Your task to perform on an android device: delete location history Image 0: 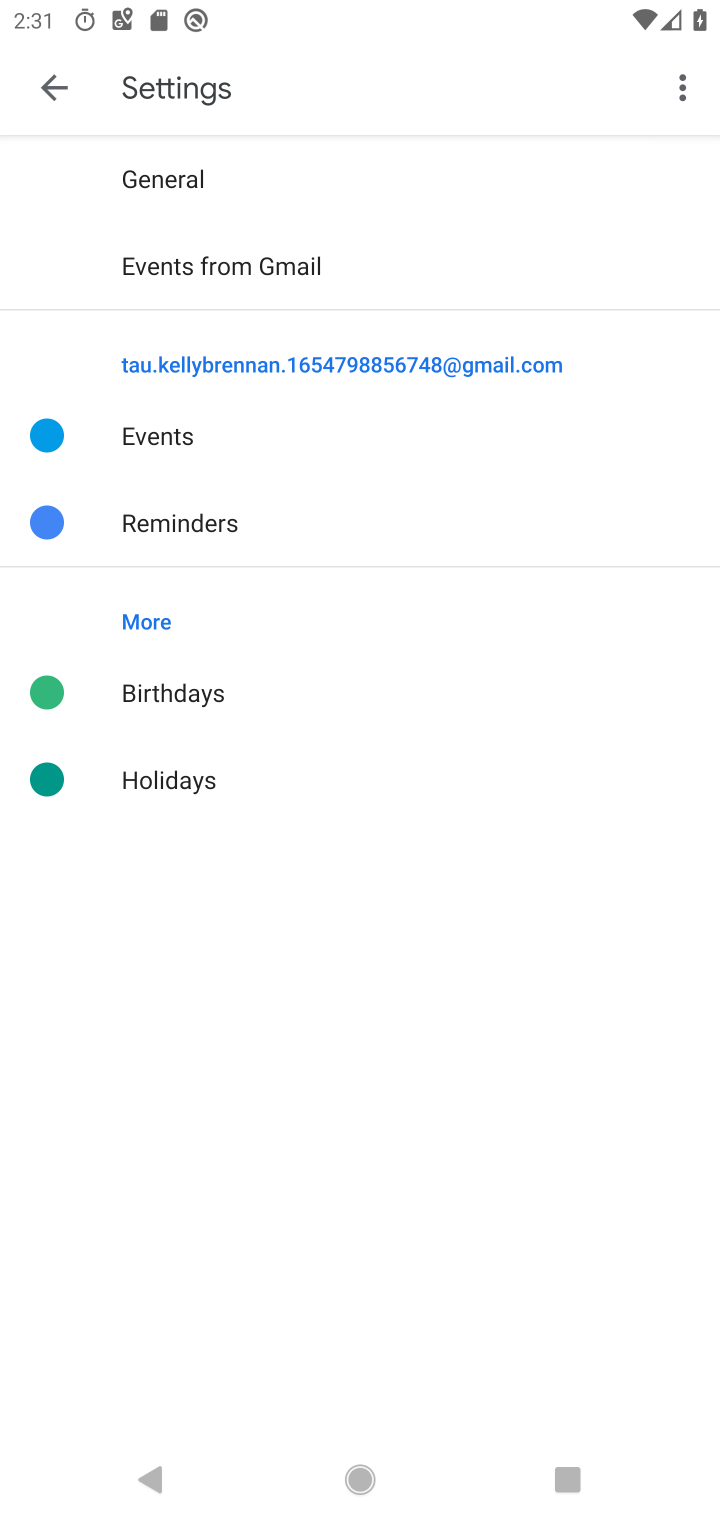
Step 0: press home button
Your task to perform on an android device: delete location history Image 1: 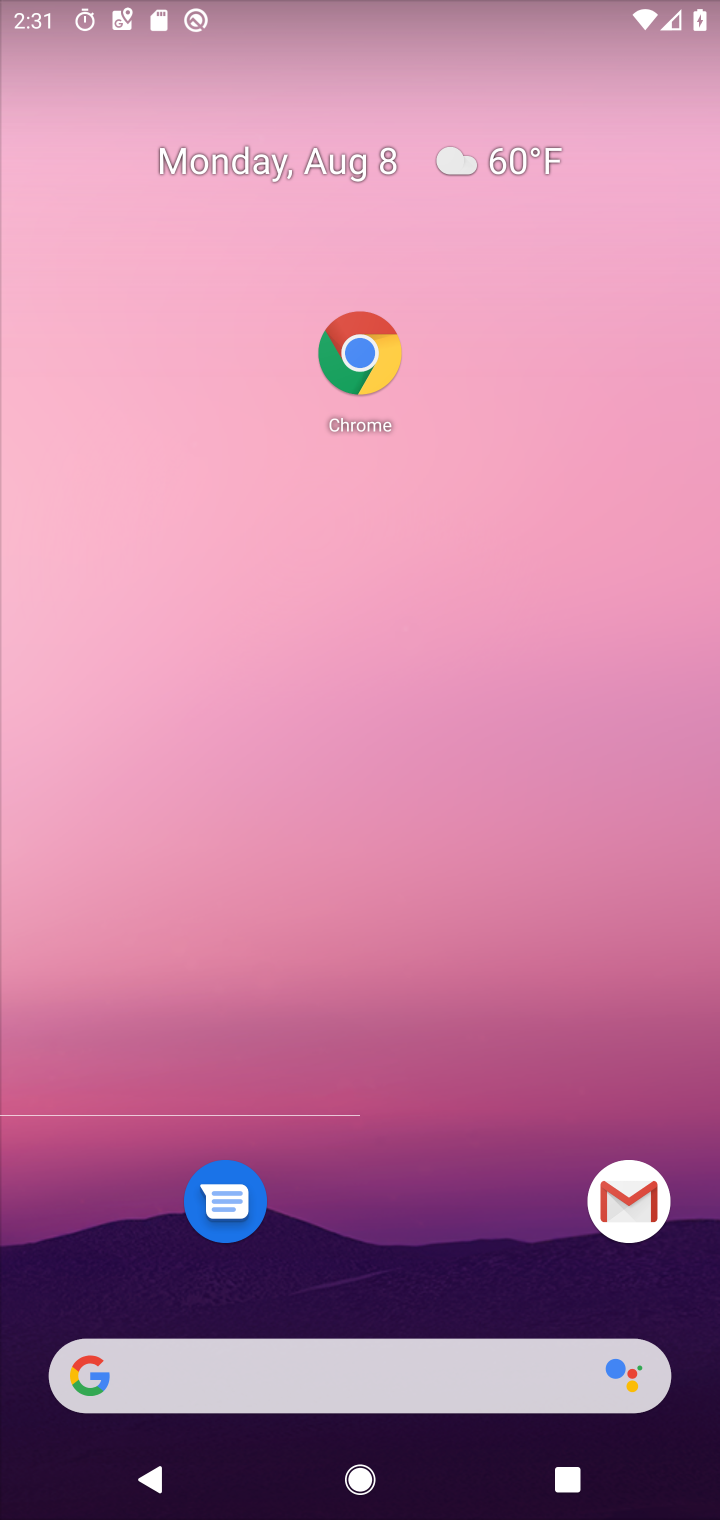
Step 1: drag from (453, 1424) to (593, 437)
Your task to perform on an android device: delete location history Image 2: 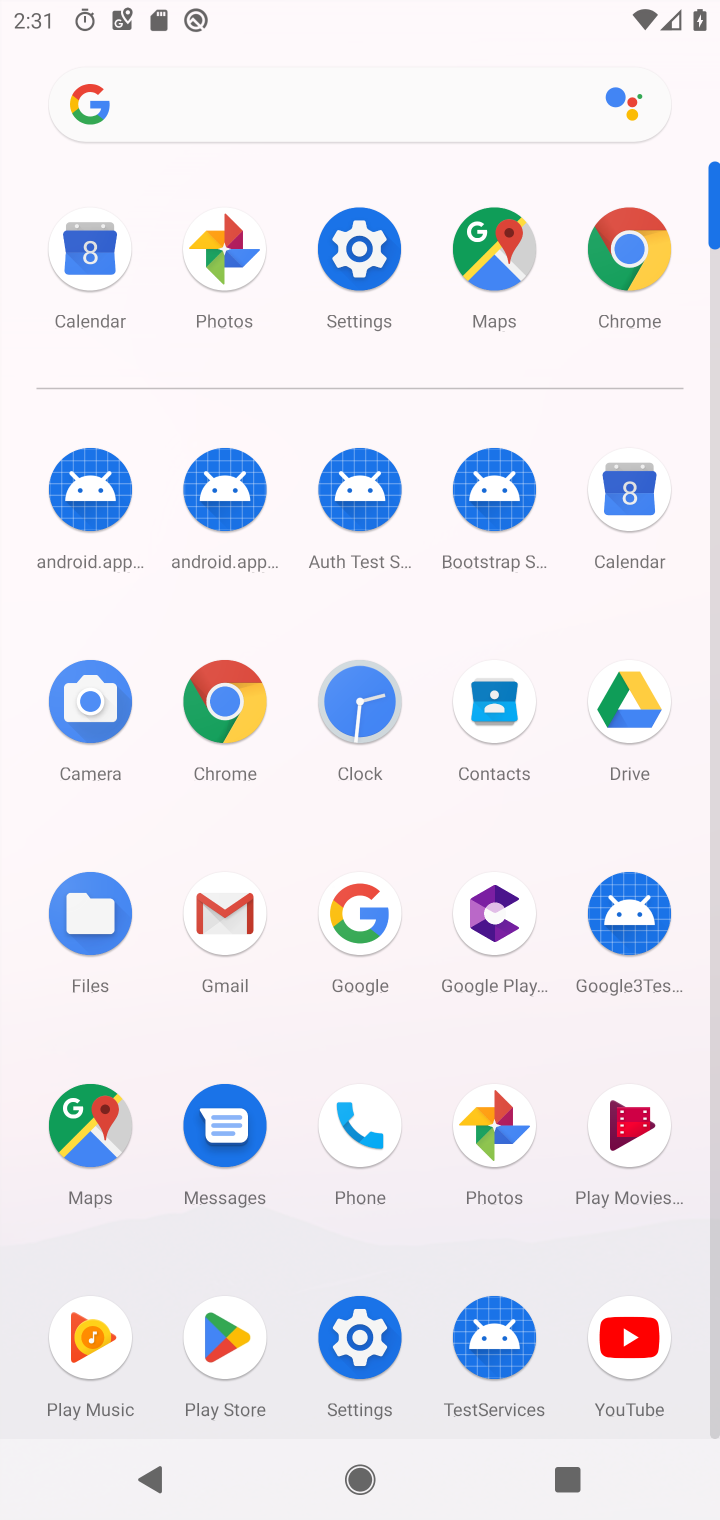
Step 2: click (366, 289)
Your task to perform on an android device: delete location history Image 3: 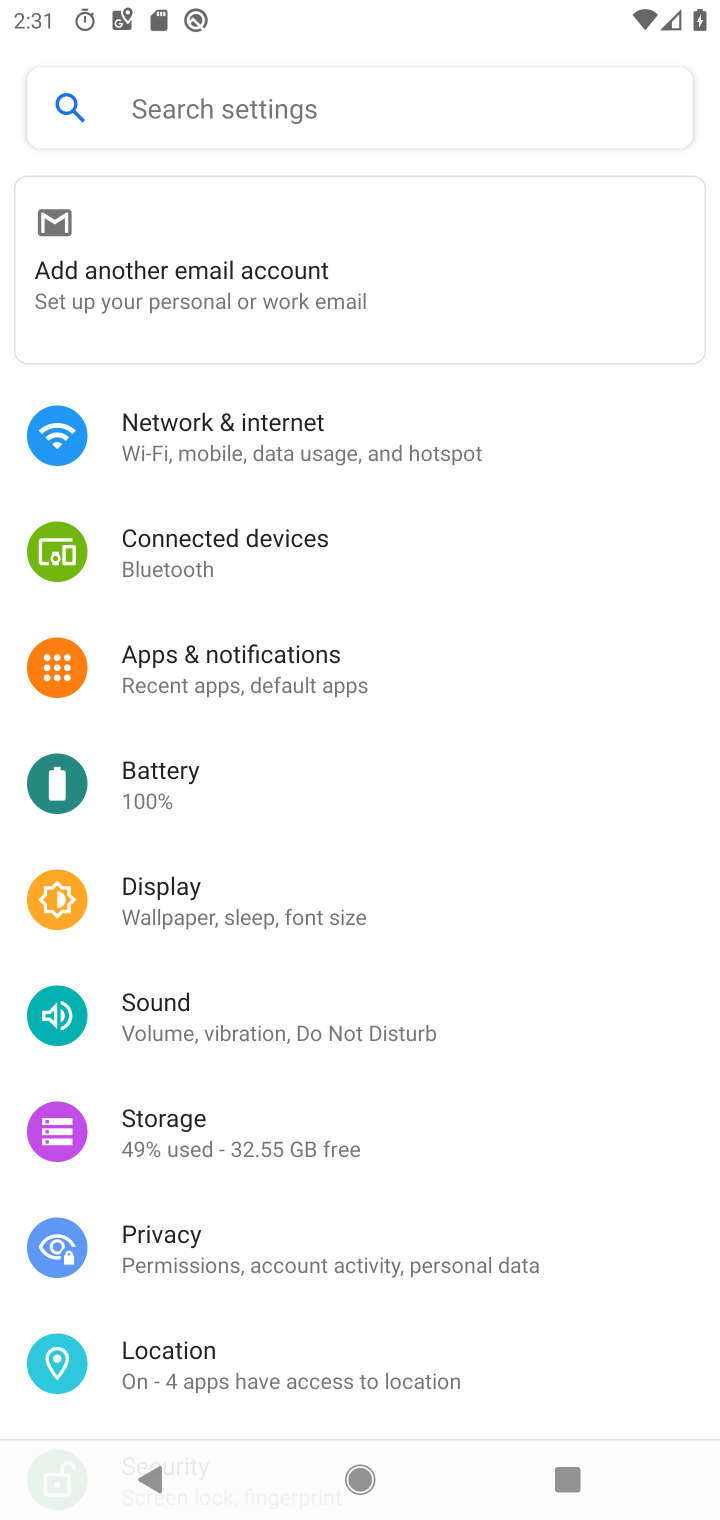
Step 3: click (188, 1366)
Your task to perform on an android device: delete location history Image 4: 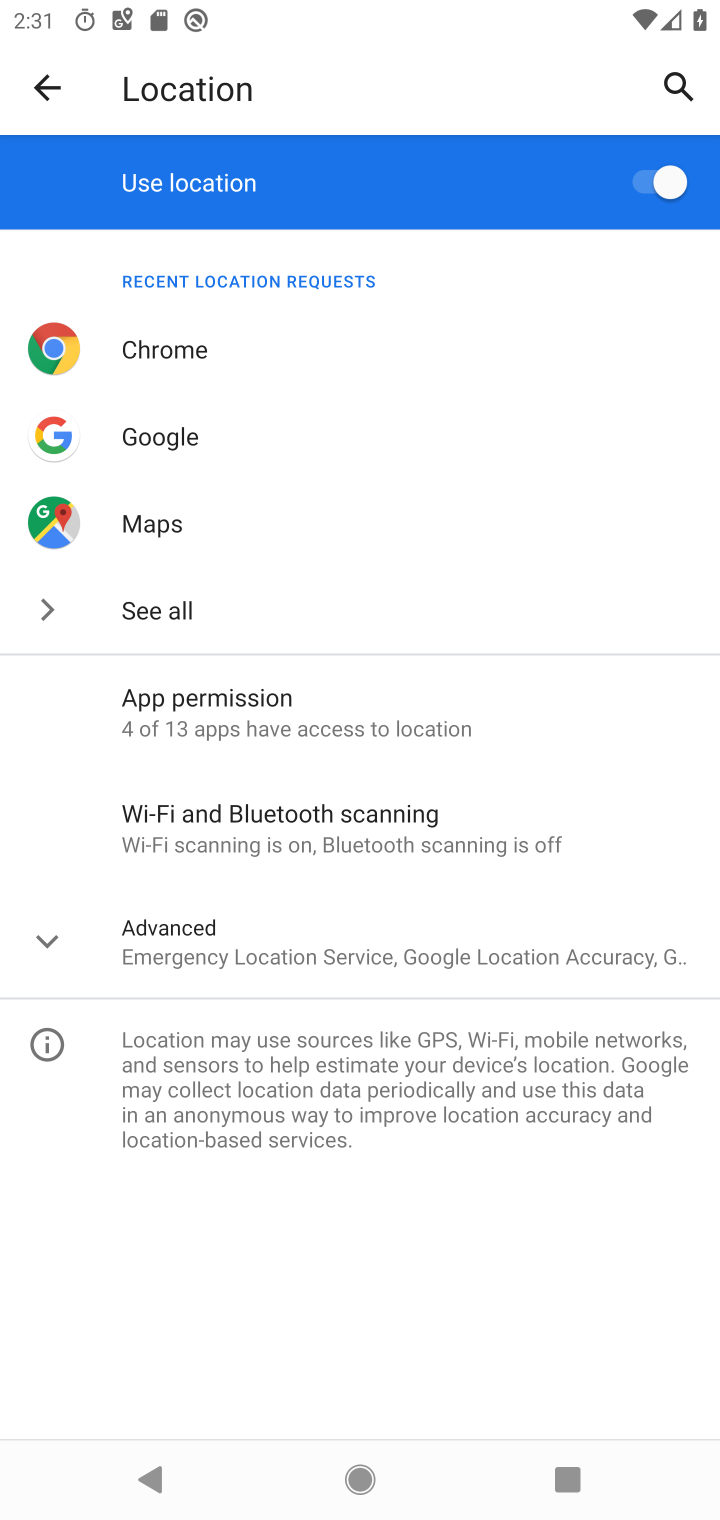
Step 4: click (81, 971)
Your task to perform on an android device: delete location history Image 5: 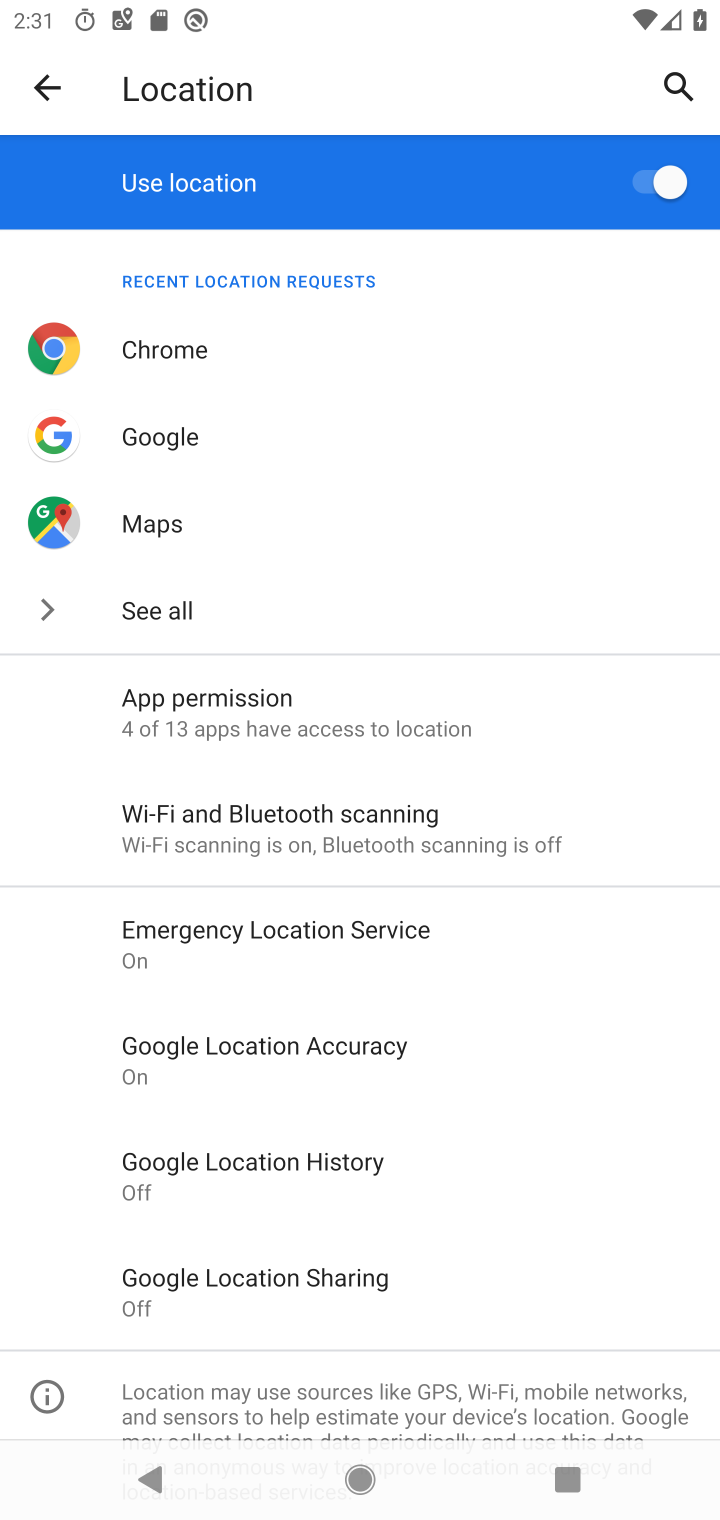
Step 5: click (314, 1164)
Your task to perform on an android device: delete location history Image 6: 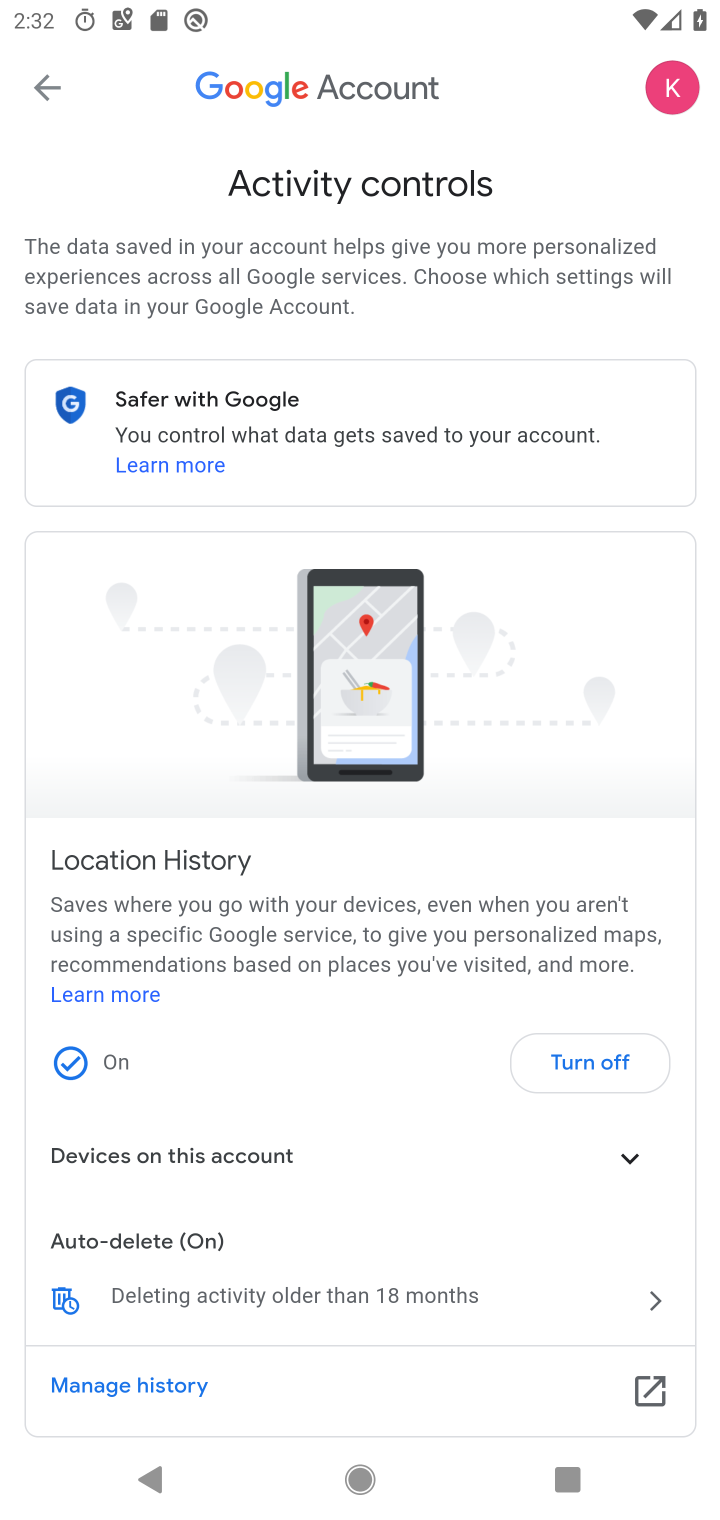
Step 6: task complete